Your task to perform on an android device: Open Chrome and go to settings Image 0: 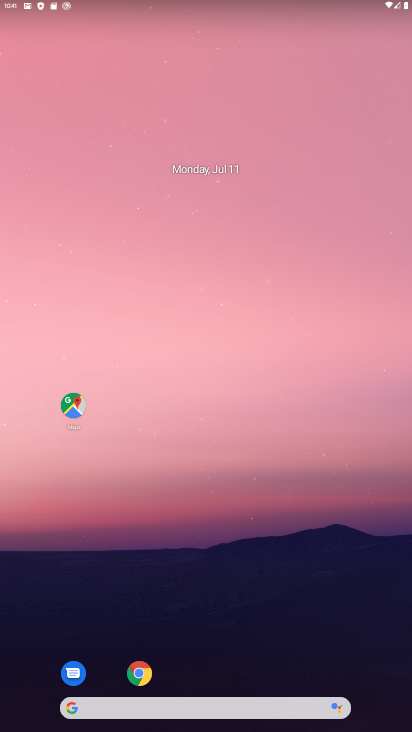
Step 0: drag from (160, 683) to (241, 235)
Your task to perform on an android device: Open Chrome and go to settings Image 1: 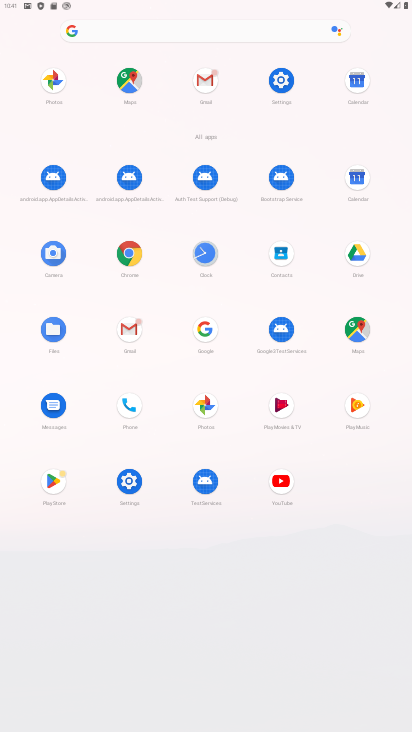
Step 1: click (135, 256)
Your task to perform on an android device: Open Chrome and go to settings Image 2: 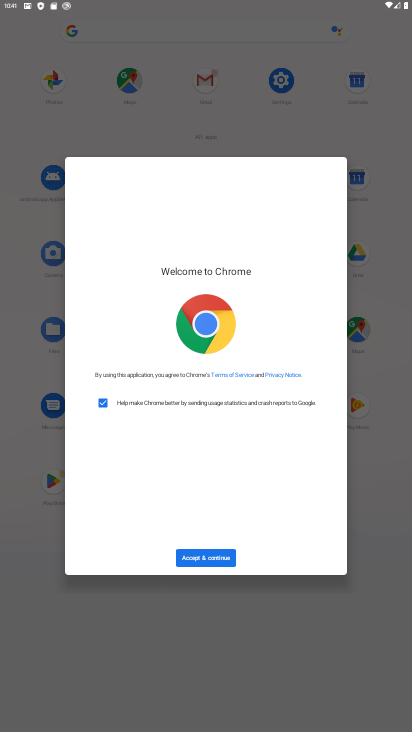
Step 2: click (224, 558)
Your task to perform on an android device: Open Chrome and go to settings Image 3: 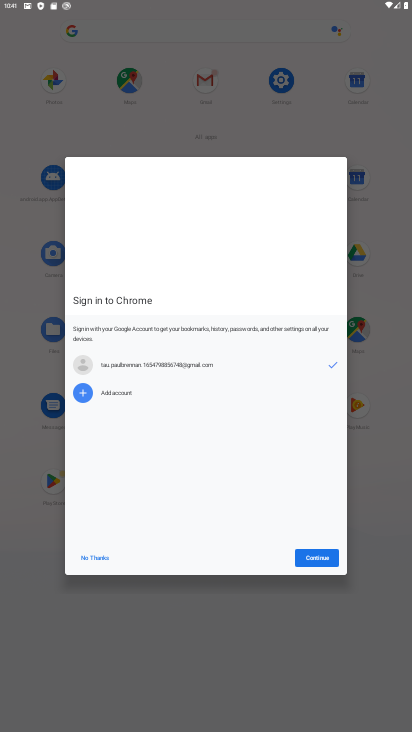
Step 3: click (315, 550)
Your task to perform on an android device: Open Chrome and go to settings Image 4: 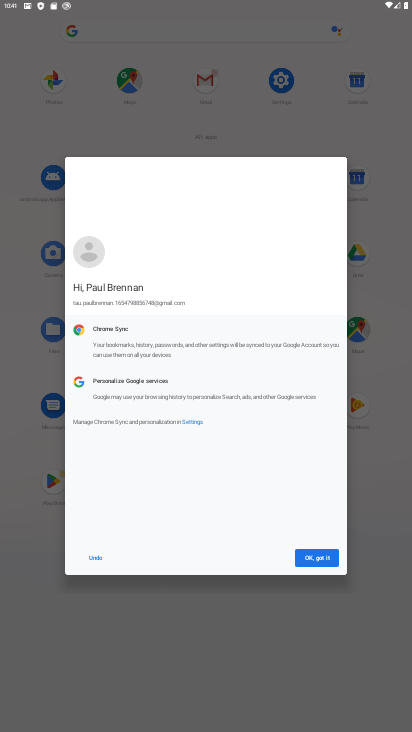
Step 4: click (323, 564)
Your task to perform on an android device: Open Chrome and go to settings Image 5: 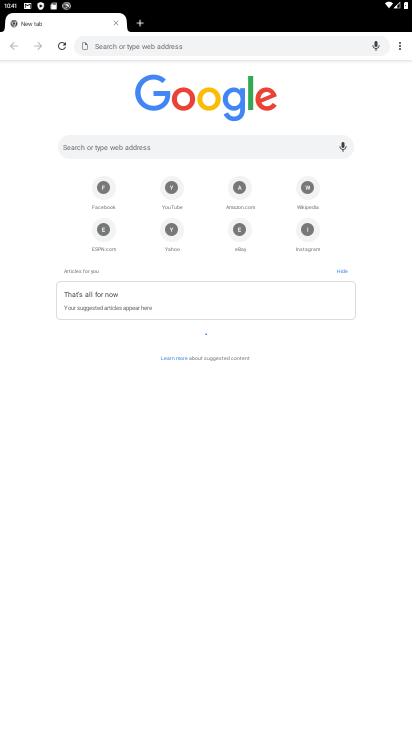
Step 5: task complete